Your task to perform on an android device: turn off location history Image 0: 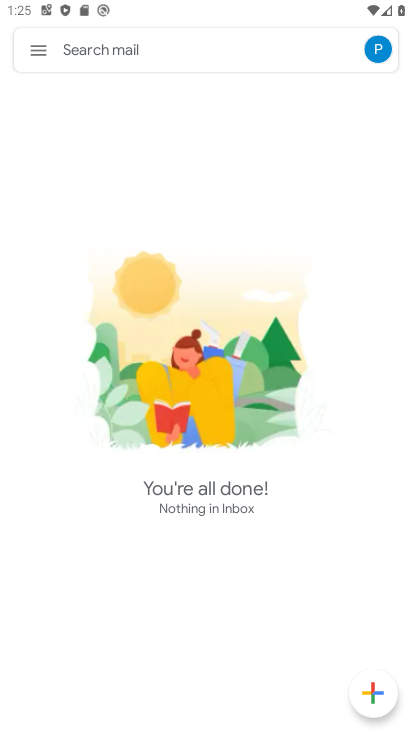
Step 0: press home button
Your task to perform on an android device: turn off location history Image 1: 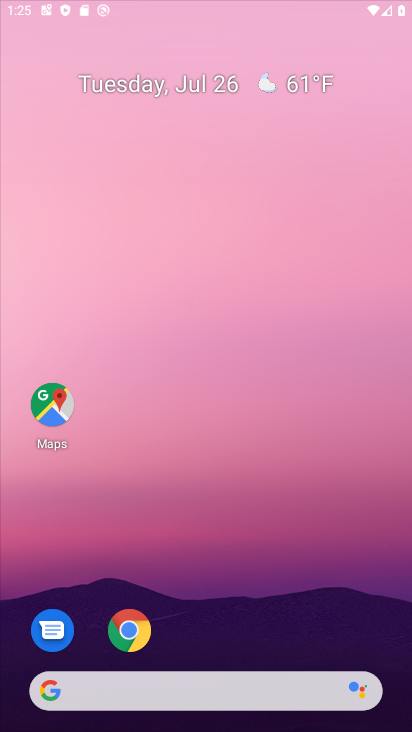
Step 1: drag from (267, 592) to (172, 6)
Your task to perform on an android device: turn off location history Image 2: 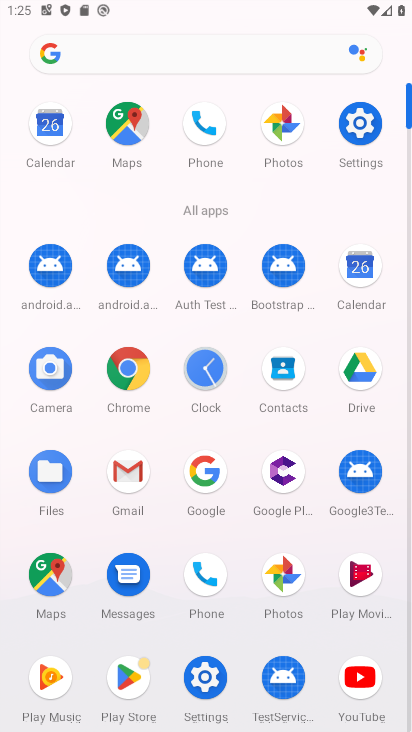
Step 2: click (355, 113)
Your task to perform on an android device: turn off location history Image 3: 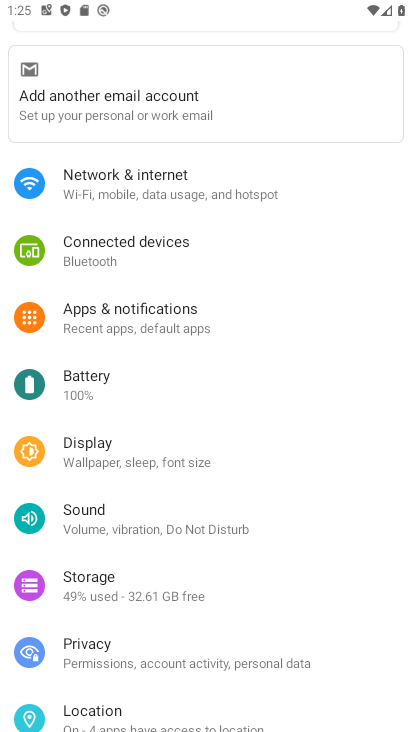
Step 3: click (83, 721)
Your task to perform on an android device: turn off location history Image 4: 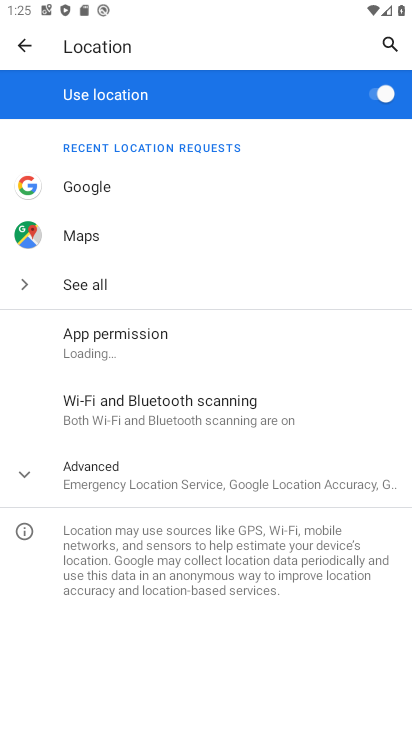
Step 4: click (232, 483)
Your task to perform on an android device: turn off location history Image 5: 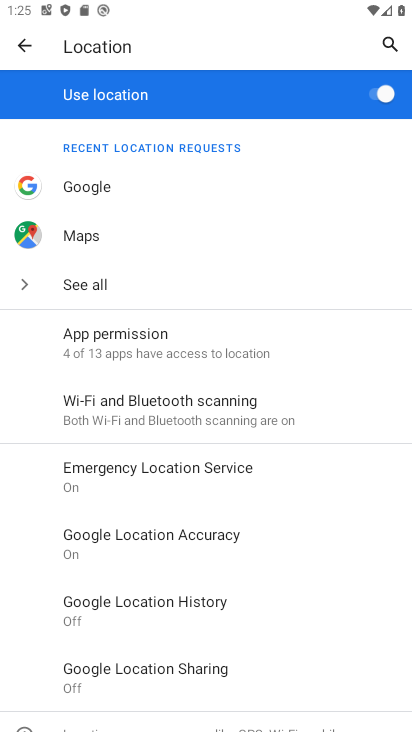
Step 5: click (184, 605)
Your task to perform on an android device: turn off location history Image 6: 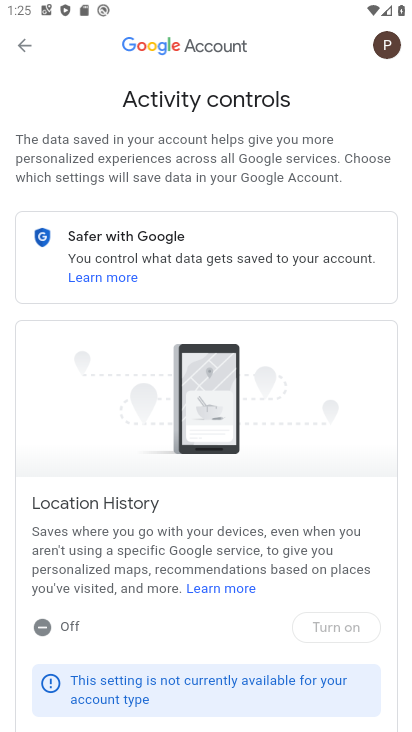
Step 6: task complete